Your task to perform on an android device: open wifi settings Image 0: 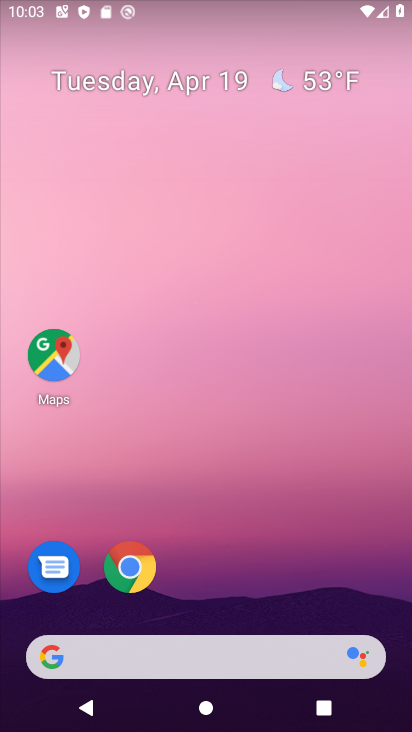
Step 0: drag from (263, 572) to (244, 72)
Your task to perform on an android device: open wifi settings Image 1: 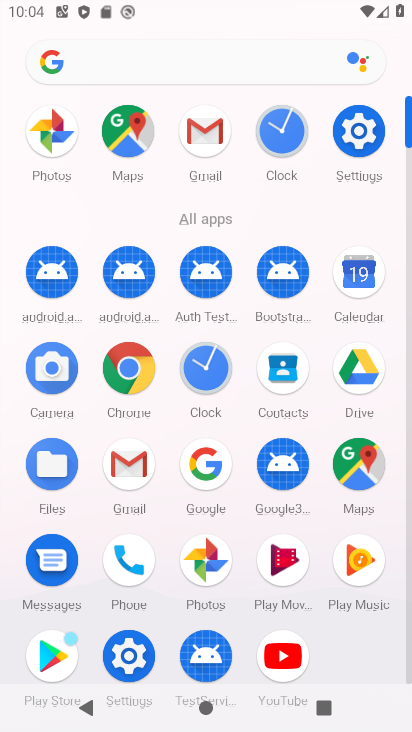
Step 1: click (365, 127)
Your task to perform on an android device: open wifi settings Image 2: 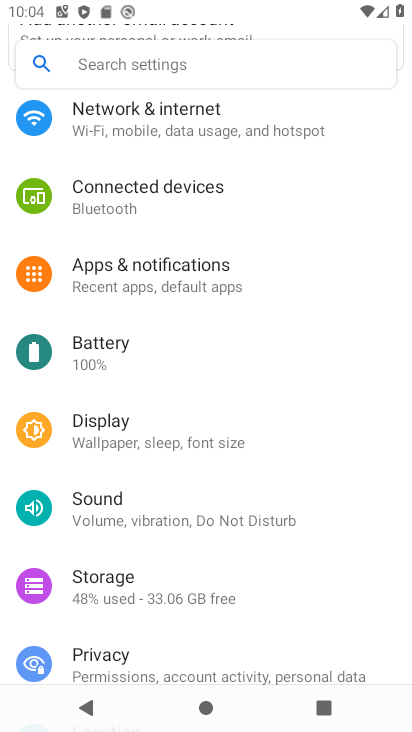
Step 2: click (286, 116)
Your task to perform on an android device: open wifi settings Image 3: 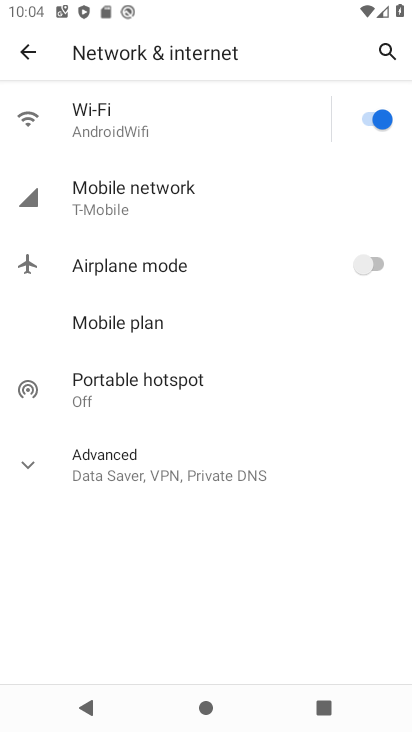
Step 3: click (248, 128)
Your task to perform on an android device: open wifi settings Image 4: 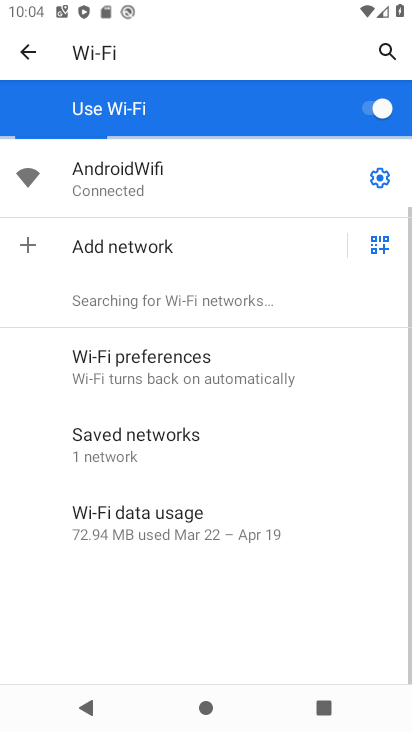
Step 4: task complete